Your task to perform on an android device: Turn off the flashlight Image 0: 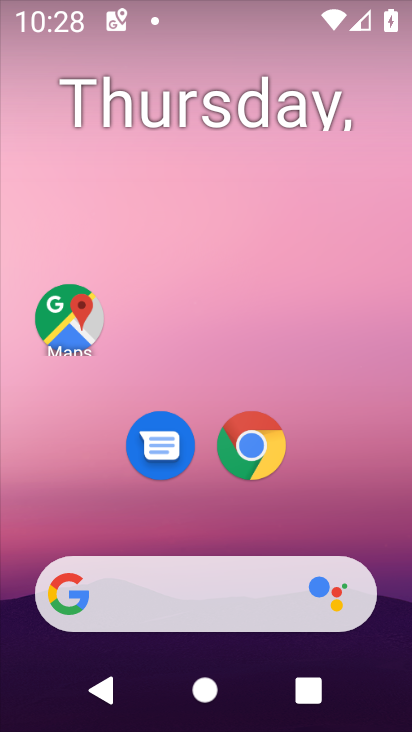
Step 0: drag from (351, 509) to (276, 75)
Your task to perform on an android device: Turn off the flashlight Image 1: 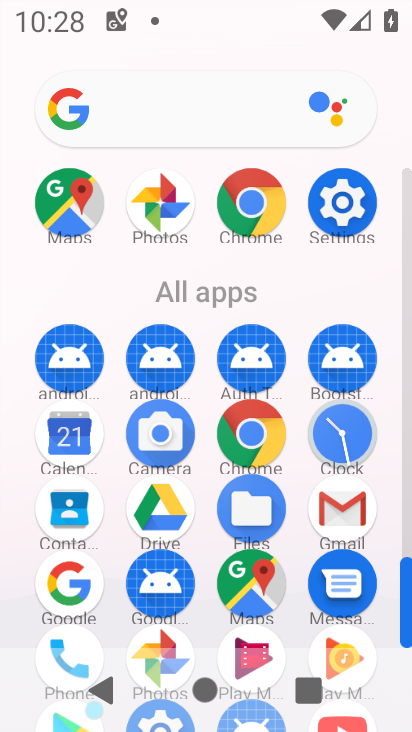
Step 1: click (327, 205)
Your task to perform on an android device: Turn off the flashlight Image 2: 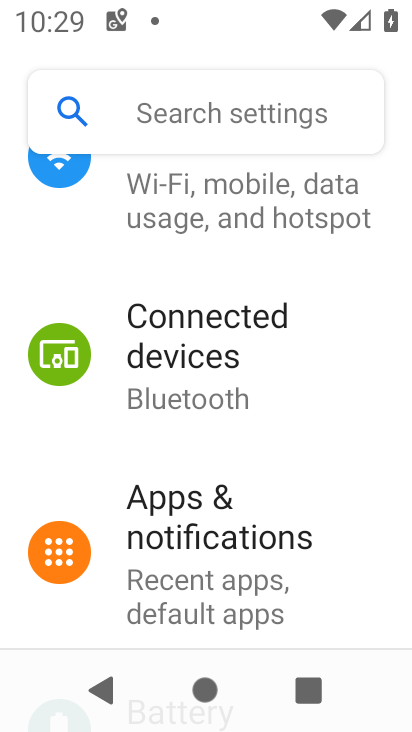
Step 2: task complete